Your task to perform on an android device: turn off improve location accuracy Image 0: 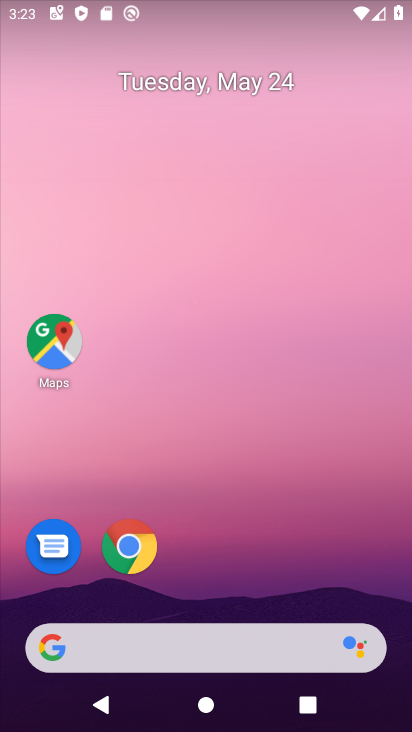
Step 0: drag from (284, 555) to (210, 15)
Your task to perform on an android device: turn off improve location accuracy Image 1: 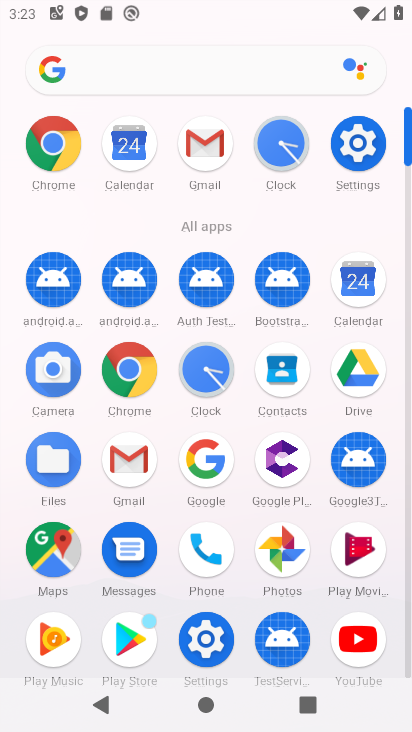
Step 1: click (354, 145)
Your task to perform on an android device: turn off improve location accuracy Image 2: 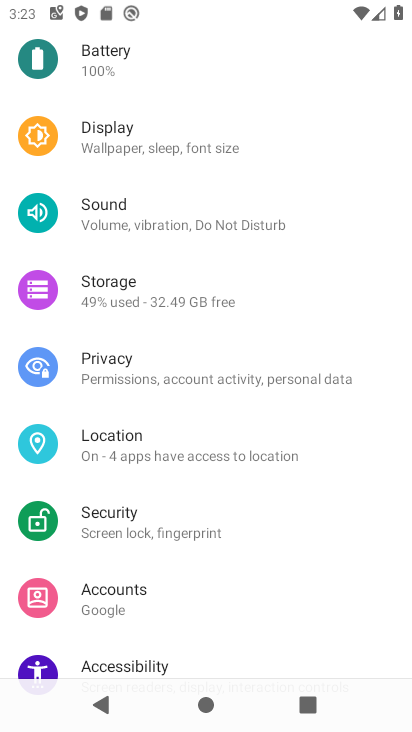
Step 2: click (182, 445)
Your task to perform on an android device: turn off improve location accuracy Image 3: 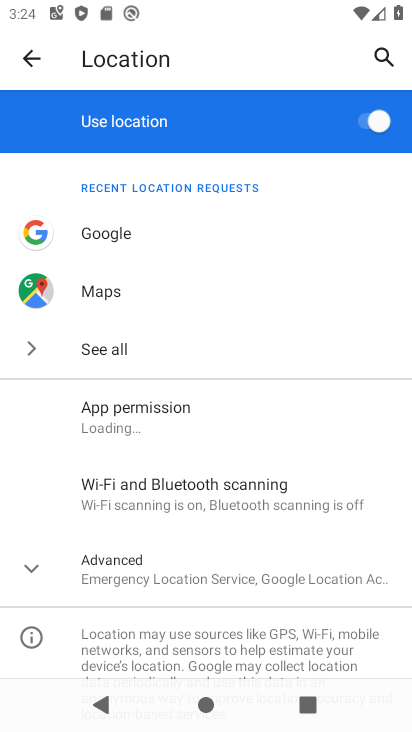
Step 3: click (177, 569)
Your task to perform on an android device: turn off improve location accuracy Image 4: 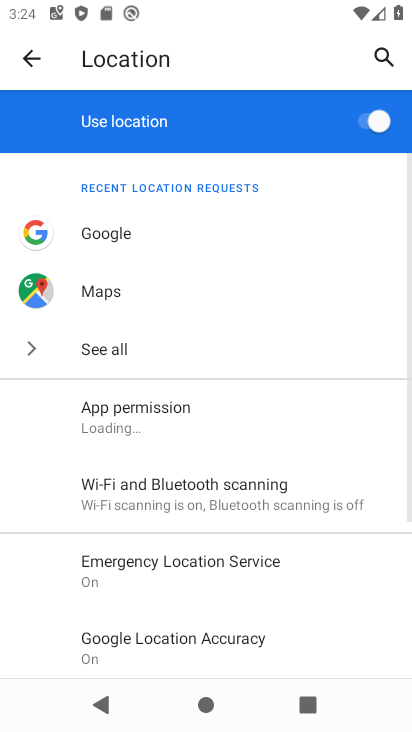
Step 4: drag from (250, 600) to (239, 293)
Your task to perform on an android device: turn off improve location accuracy Image 5: 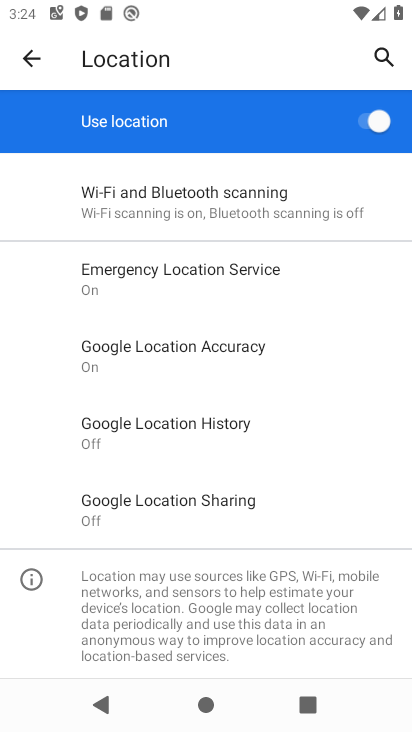
Step 5: click (203, 350)
Your task to perform on an android device: turn off improve location accuracy Image 6: 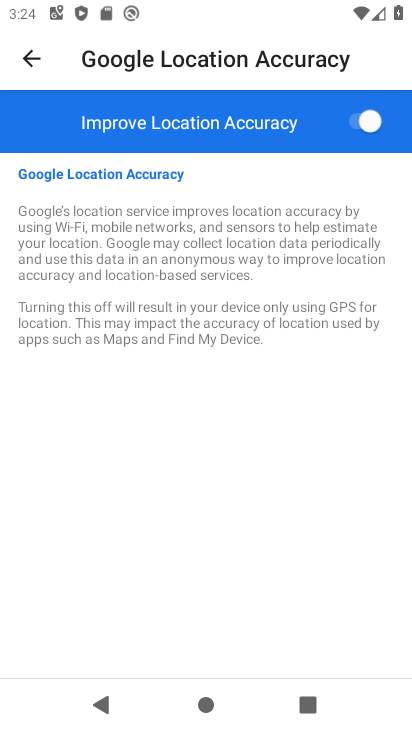
Step 6: click (368, 118)
Your task to perform on an android device: turn off improve location accuracy Image 7: 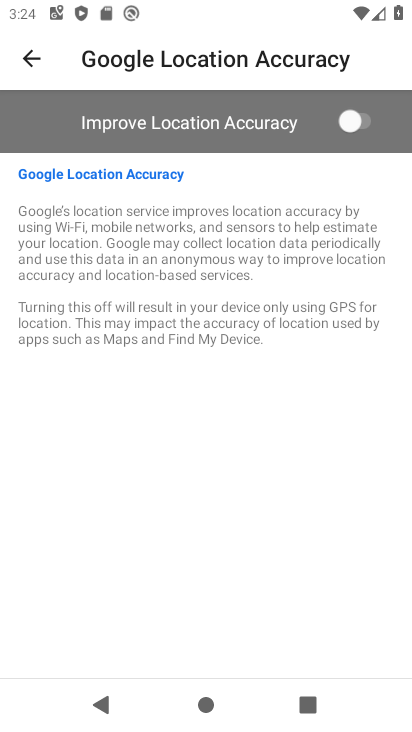
Step 7: task complete